Your task to perform on an android device: Toggle the flashlight Image 0: 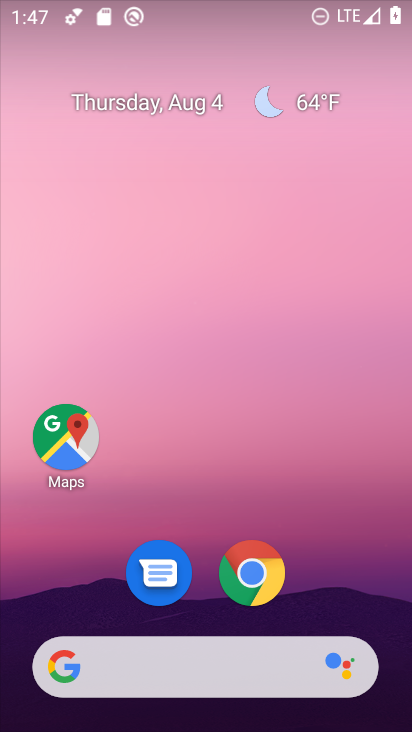
Step 0: drag from (325, 522) to (295, 71)
Your task to perform on an android device: Toggle the flashlight Image 1: 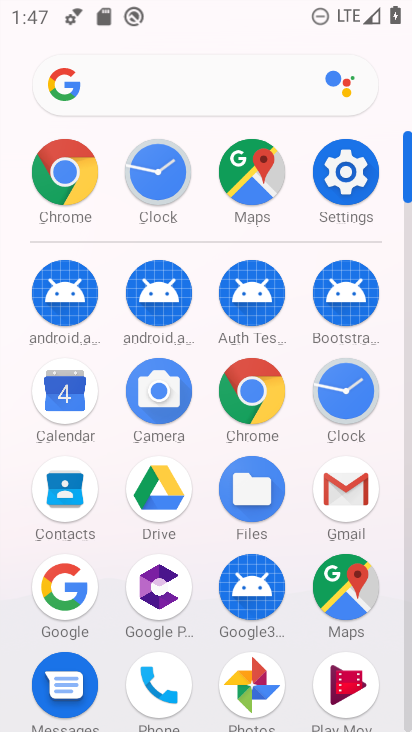
Step 1: click (355, 180)
Your task to perform on an android device: Toggle the flashlight Image 2: 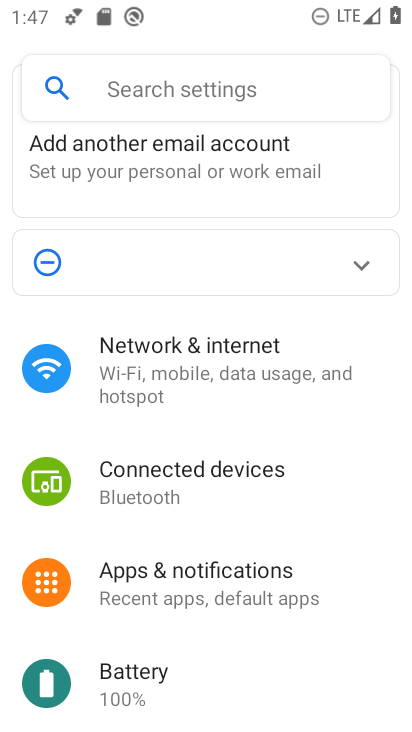
Step 2: drag from (266, 585) to (286, 68)
Your task to perform on an android device: Toggle the flashlight Image 3: 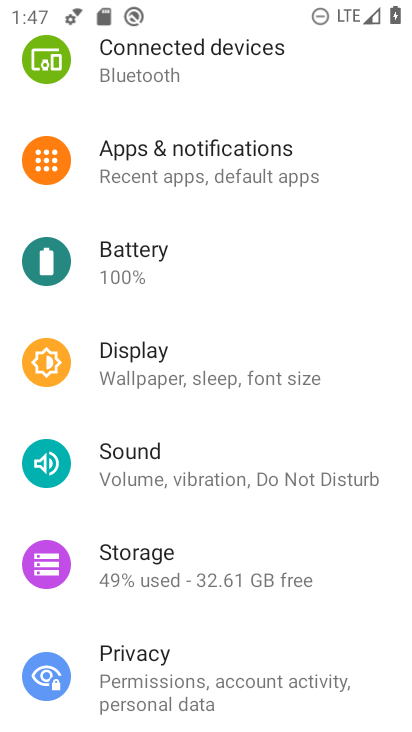
Step 3: drag from (252, 108) to (255, 614)
Your task to perform on an android device: Toggle the flashlight Image 4: 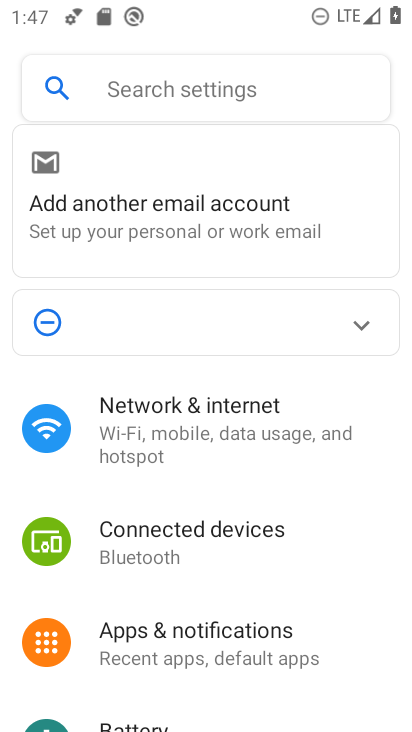
Step 4: drag from (263, 606) to (324, 214)
Your task to perform on an android device: Toggle the flashlight Image 5: 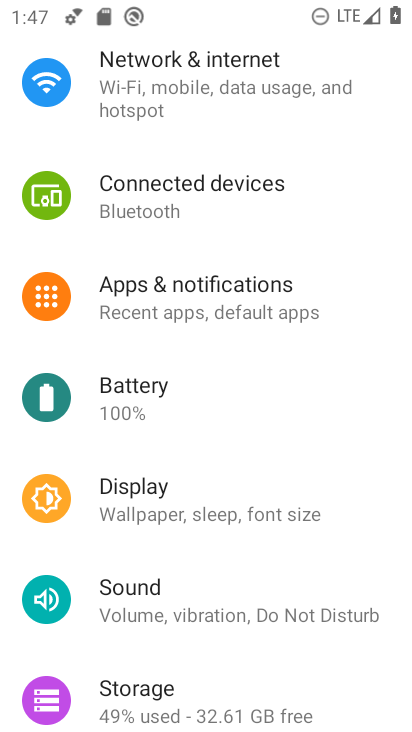
Step 5: click (218, 491)
Your task to perform on an android device: Toggle the flashlight Image 6: 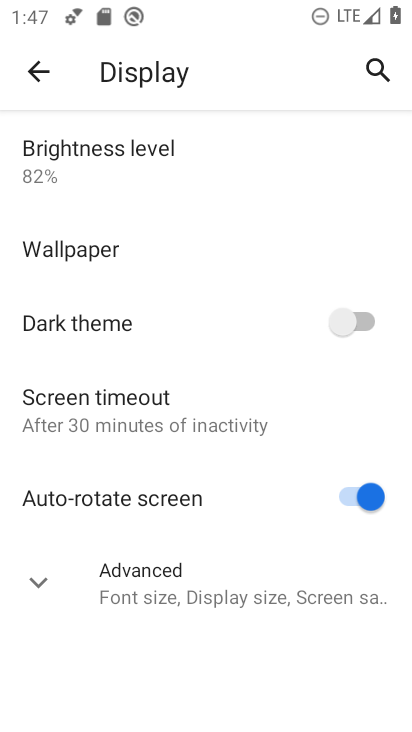
Step 6: click (85, 416)
Your task to perform on an android device: Toggle the flashlight Image 7: 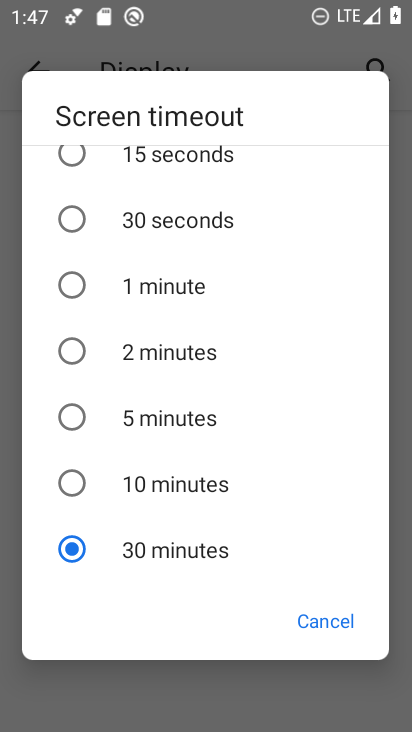
Step 7: task complete